Your task to perform on an android device: set the stopwatch Image 0: 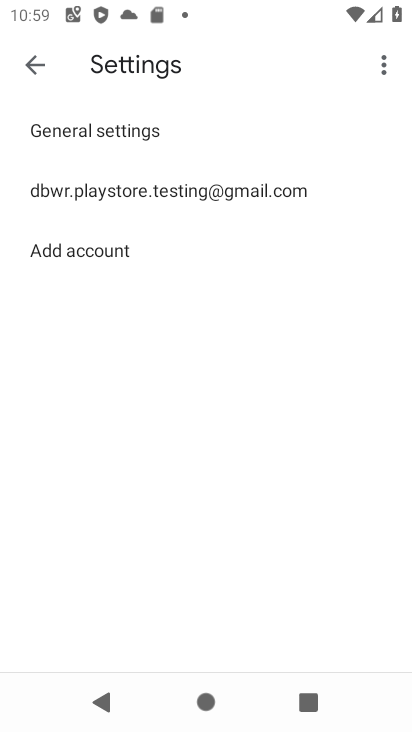
Step 0: press home button
Your task to perform on an android device: set the stopwatch Image 1: 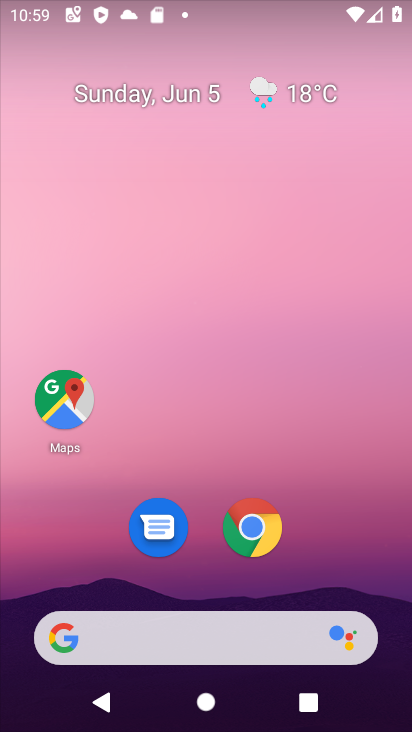
Step 1: drag from (380, 554) to (240, 4)
Your task to perform on an android device: set the stopwatch Image 2: 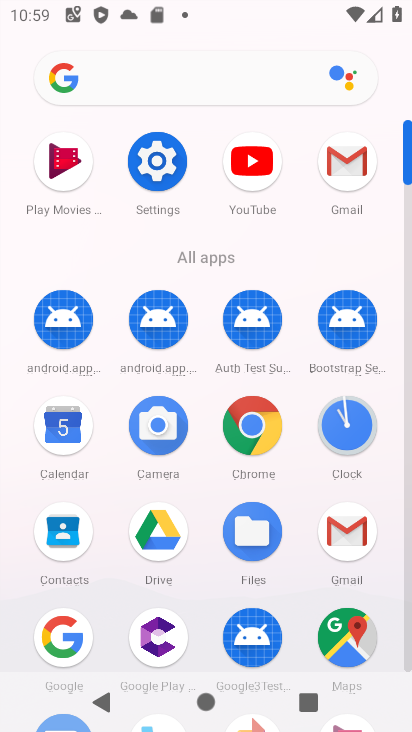
Step 2: click (353, 425)
Your task to perform on an android device: set the stopwatch Image 3: 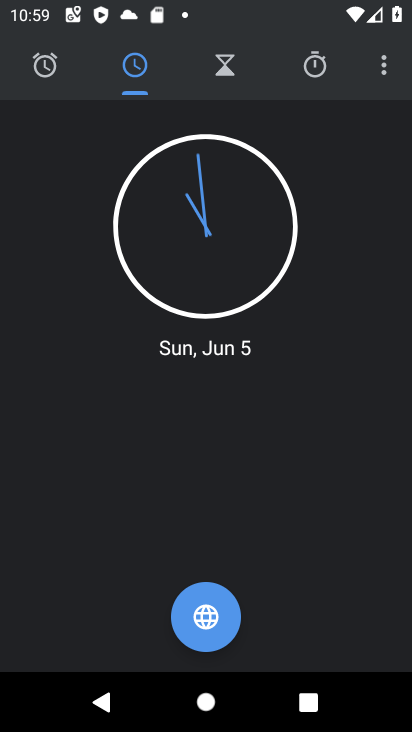
Step 3: click (311, 72)
Your task to perform on an android device: set the stopwatch Image 4: 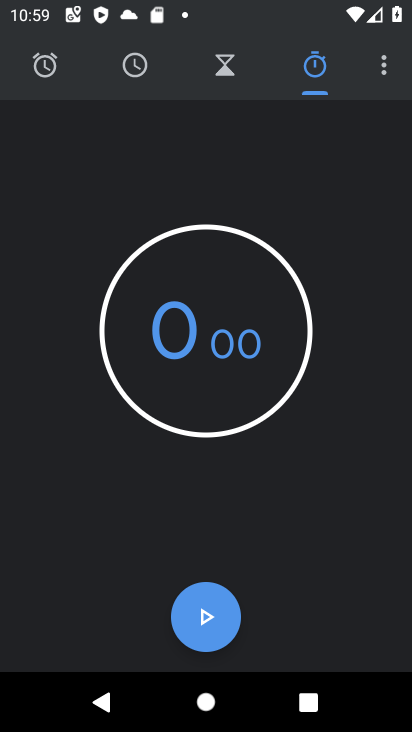
Step 4: click (216, 614)
Your task to perform on an android device: set the stopwatch Image 5: 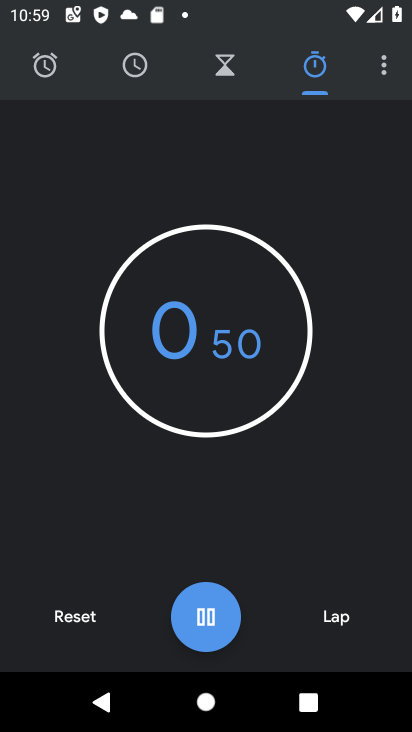
Step 5: task complete